Your task to perform on an android device: check storage Image 0: 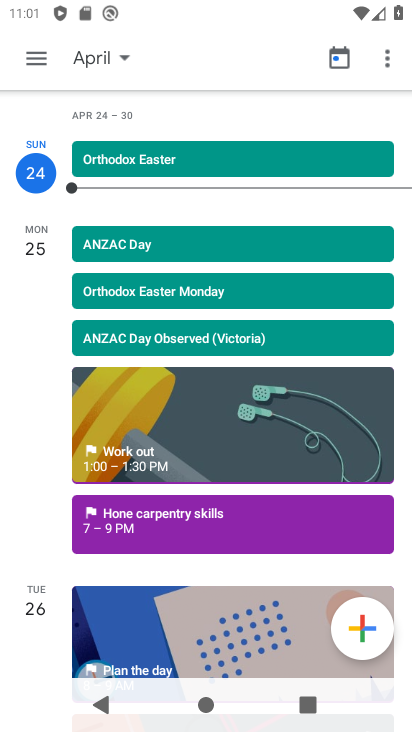
Step 0: press back button
Your task to perform on an android device: check storage Image 1: 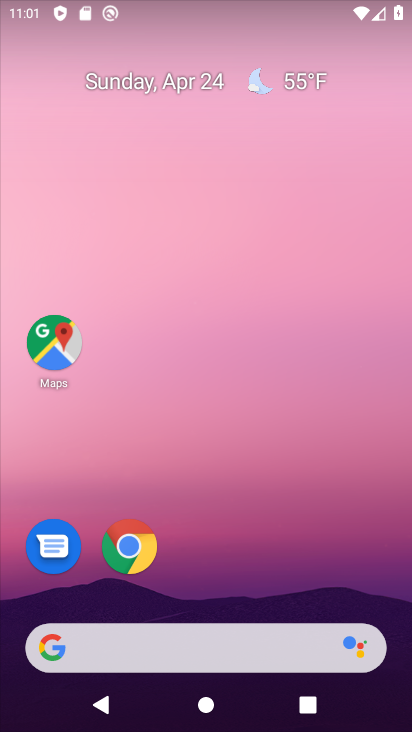
Step 1: drag from (254, 543) to (225, 39)
Your task to perform on an android device: check storage Image 2: 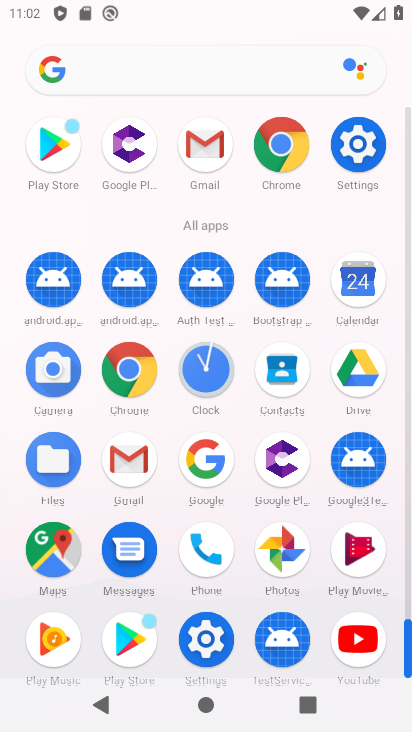
Step 2: click (356, 143)
Your task to perform on an android device: check storage Image 3: 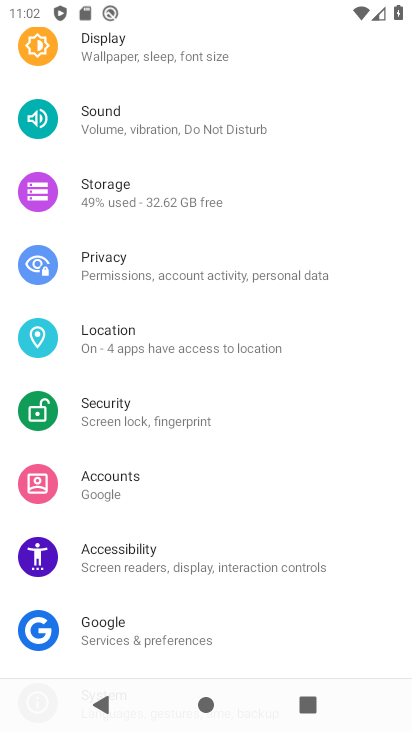
Step 3: click (117, 188)
Your task to perform on an android device: check storage Image 4: 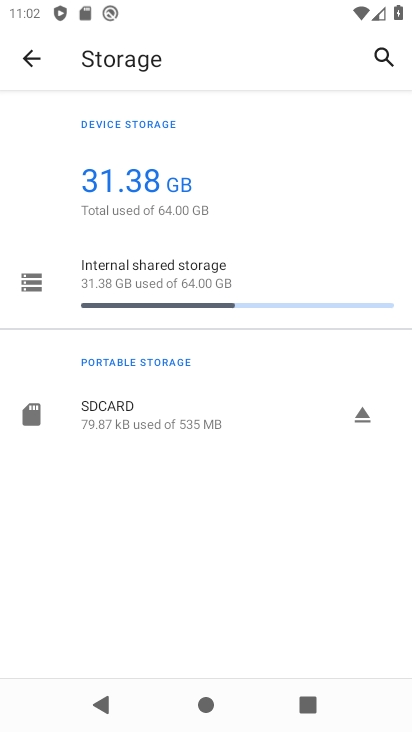
Step 4: task complete